Your task to perform on an android device: visit the assistant section in the google photos Image 0: 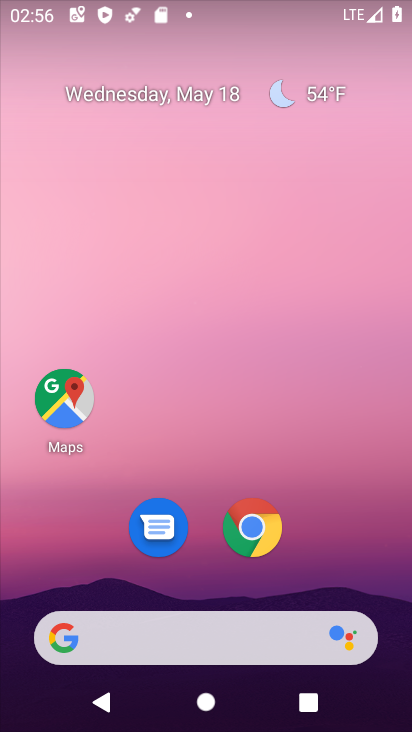
Step 0: drag from (207, 609) to (185, 7)
Your task to perform on an android device: visit the assistant section in the google photos Image 1: 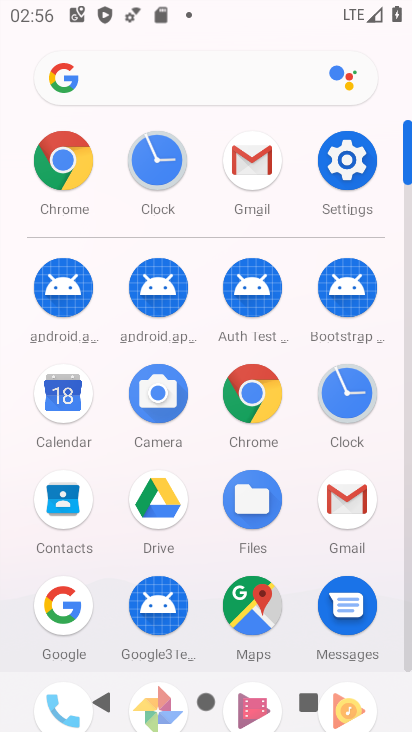
Step 1: drag from (135, 671) to (103, 377)
Your task to perform on an android device: visit the assistant section in the google photos Image 2: 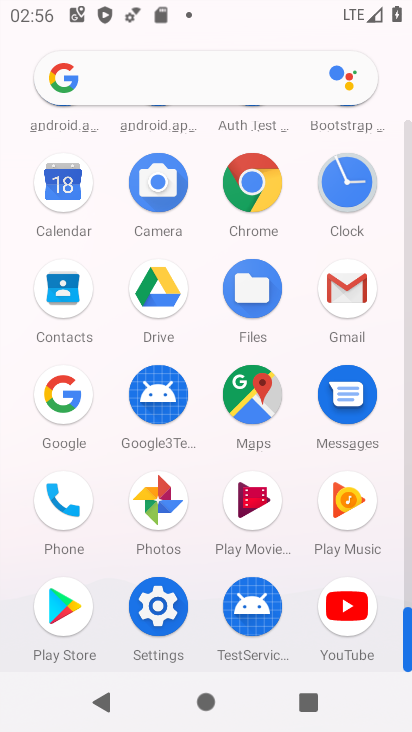
Step 2: click (157, 483)
Your task to perform on an android device: visit the assistant section in the google photos Image 3: 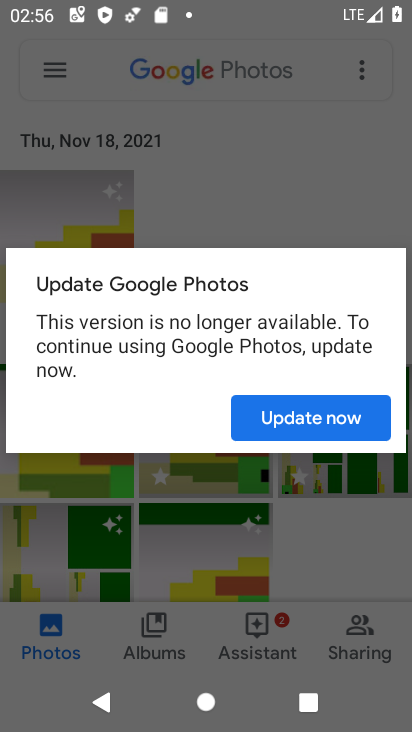
Step 3: click (318, 424)
Your task to perform on an android device: visit the assistant section in the google photos Image 4: 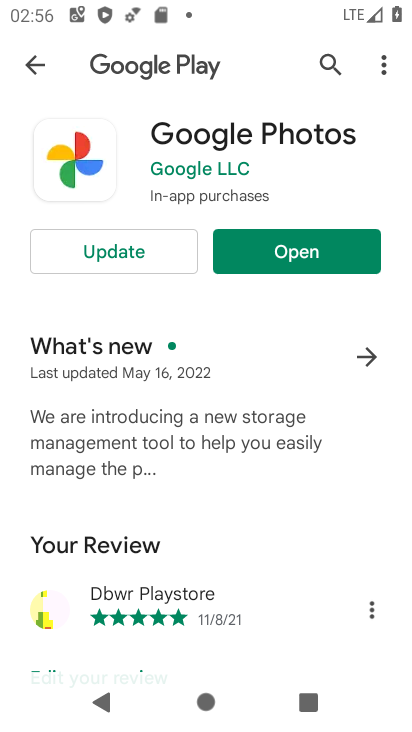
Step 4: click (318, 422)
Your task to perform on an android device: visit the assistant section in the google photos Image 5: 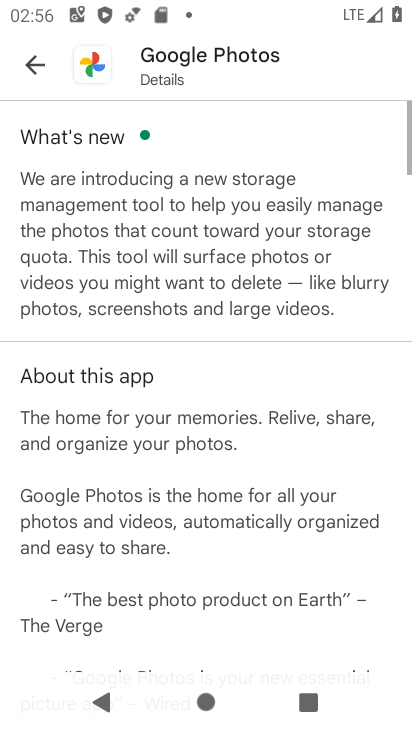
Step 5: click (305, 230)
Your task to perform on an android device: visit the assistant section in the google photos Image 6: 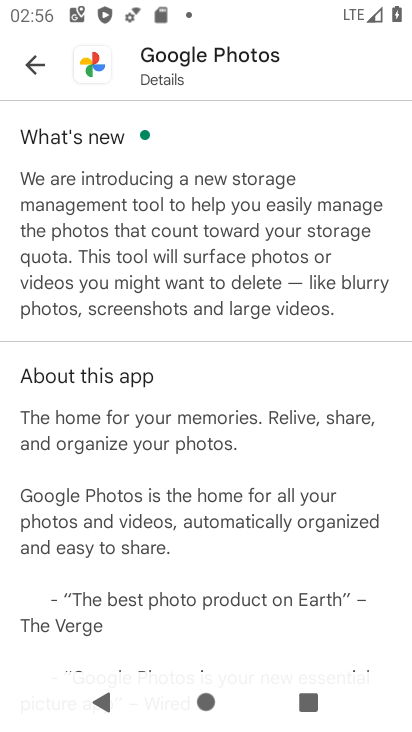
Step 6: drag from (224, 537) to (101, 9)
Your task to perform on an android device: visit the assistant section in the google photos Image 7: 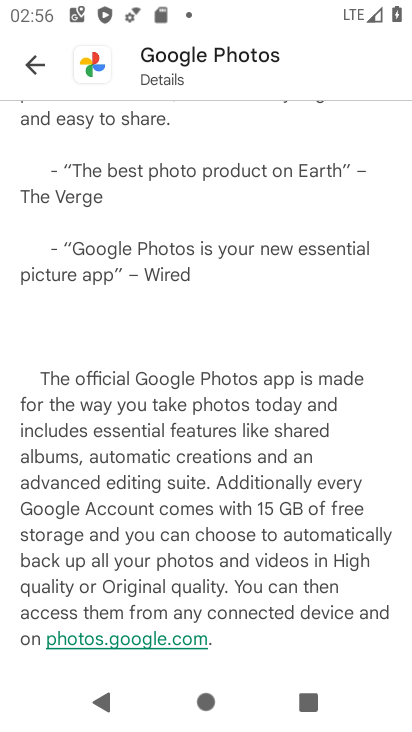
Step 7: drag from (133, 486) to (87, 120)
Your task to perform on an android device: visit the assistant section in the google photos Image 8: 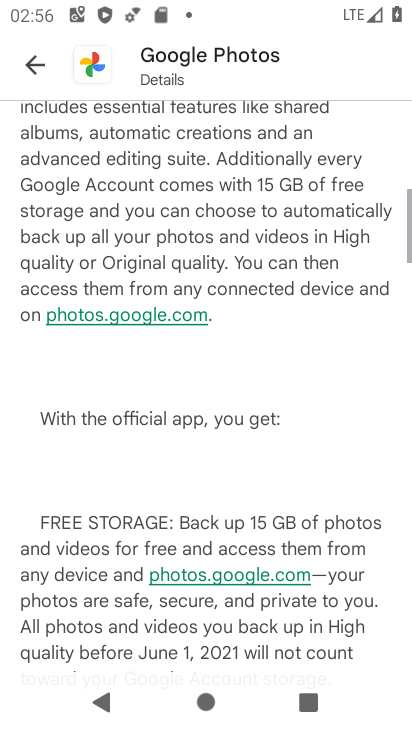
Step 8: click (20, 69)
Your task to perform on an android device: visit the assistant section in the google photos Image 9: 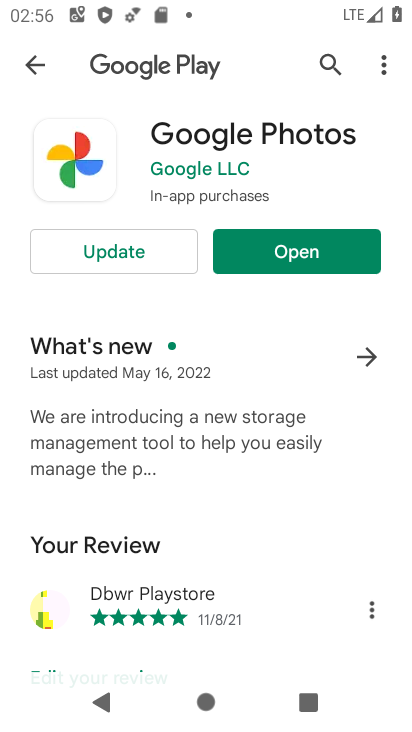
Step 9: click (347, 240)
Your task to perform on an android device: visit the assistant section in the google photos Image 10: 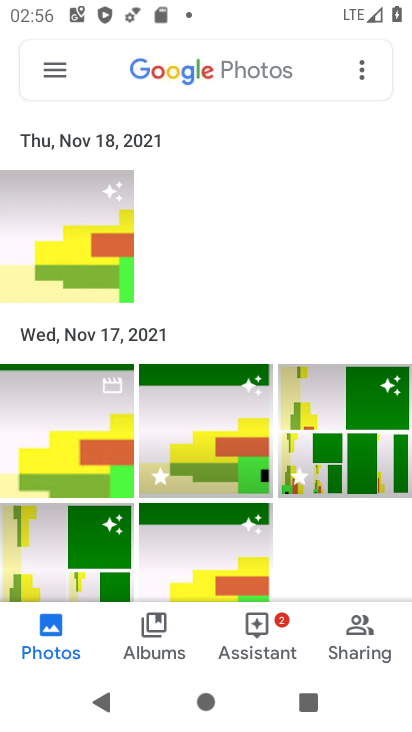
Step 10: click (261, 614)
Your task to perform on an android device: visit the assistant section in the google photos Image 11: 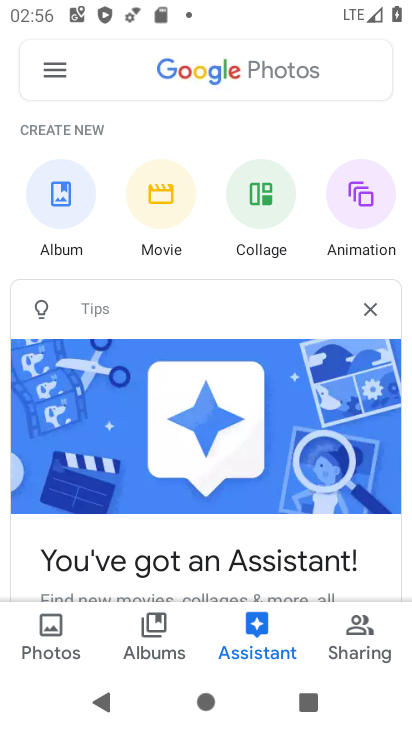
Step 11: task complete